Your task to perform on an android device: Go to accessibility settings Image 0: 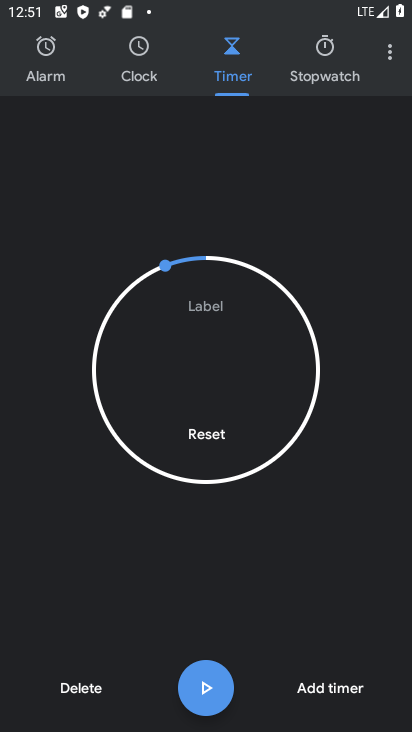
Step 0: press home button
Your task to perform on an android device: Go to accessibility settings Image 1: 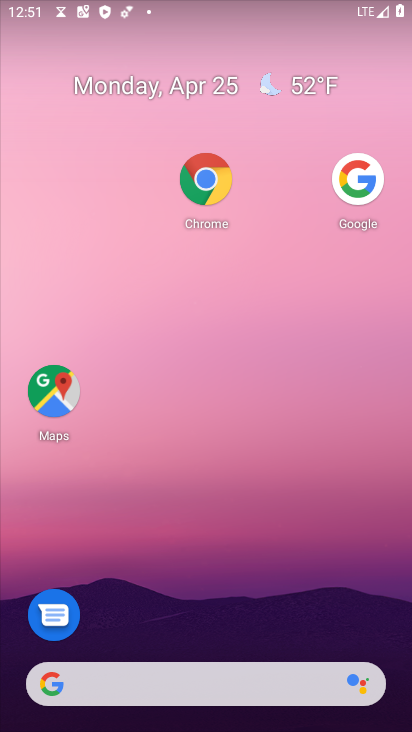
Step 1: drag from (182, 678) to (387, 174)
Your task to perform on an android device: Go to accessibility settings Image 2: 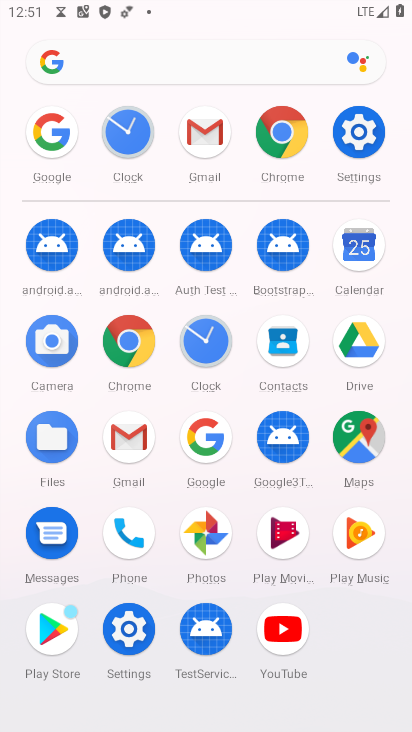
Step 2: click (360, 142)
Your task to perform on an android device: Go to accessibility settings Image 3: 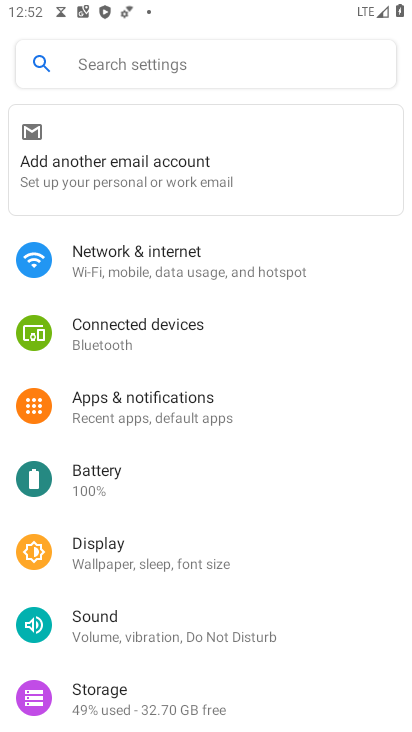
Step 3: drag from (197, 554) to (397, 99)
Your task to perform on an android device: Go to accessibility settings Image 4: 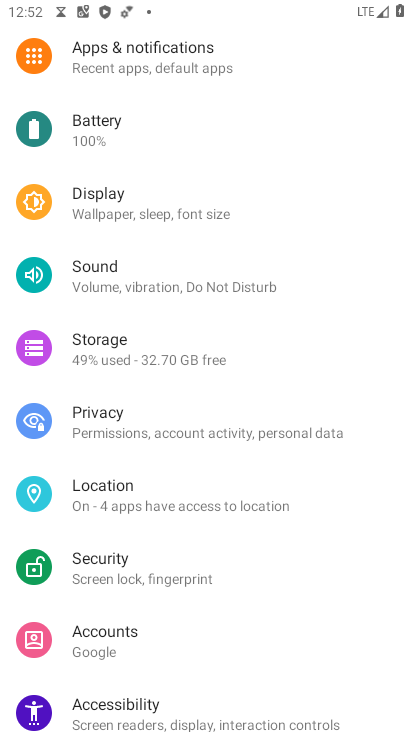
Step 4: click (119, 707)
Your task to perform on an android device: Go to accessibility settings Image 5: 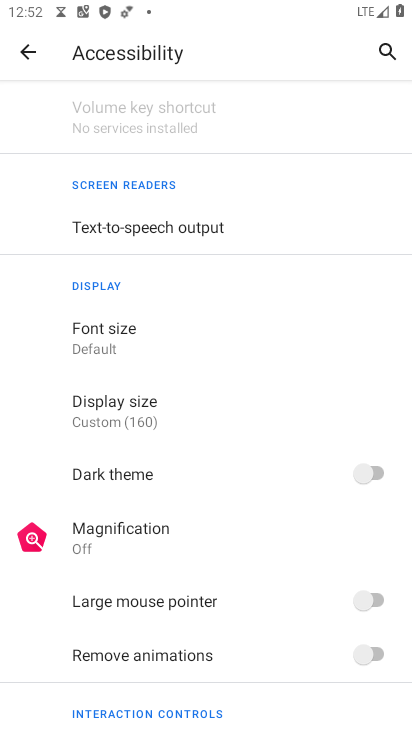
Step 5: task complete